Your task to perform on an android device: Open Google Chrome and open the bookmarks view Image 0: 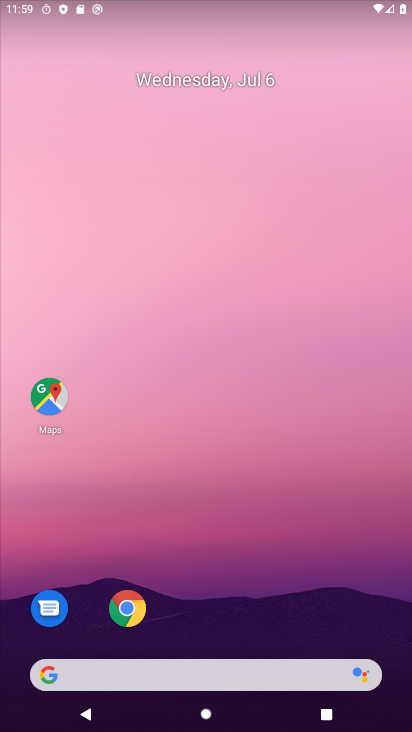
Step 0: drag from (179, 567) to (247, 80)
Your task to perform on an android device: Open Google Chrome and open the bookmarks view Image 1: 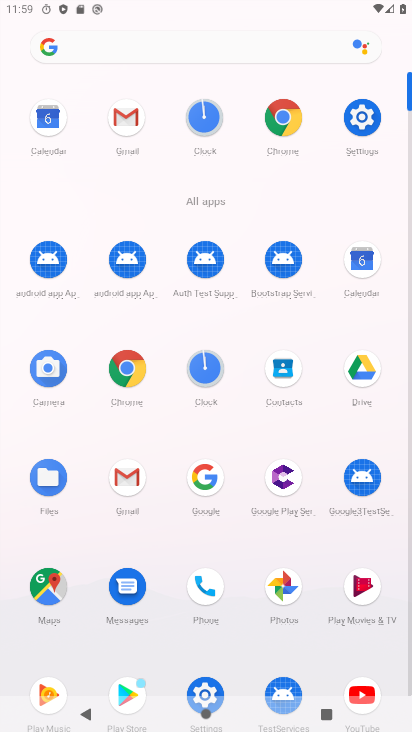
Step 1: click (114, 365)
Your task to perform on an android device: Open Google Chrome and open the bookmarks view Image 2: 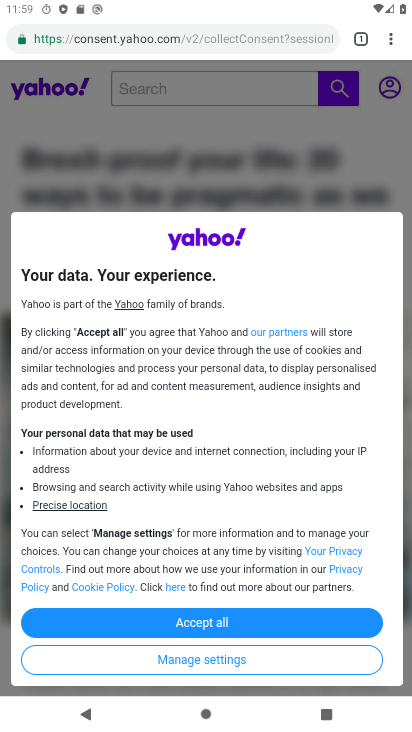
Step 2: task complete